Your task to perform on an android device: show emergency info Image 0: 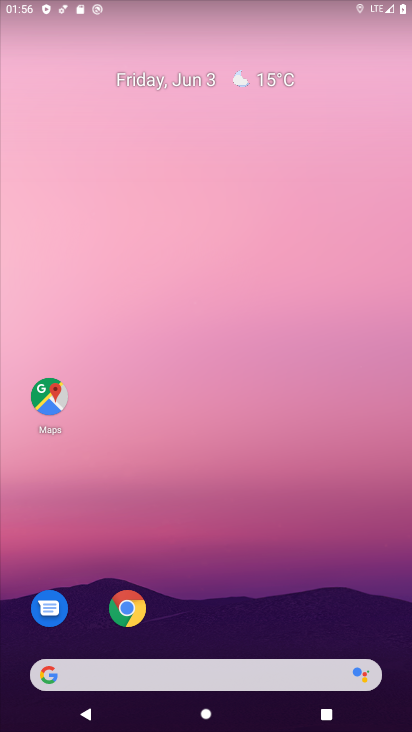
Step 0: drag from (275, 567) to (225, 113)
Your task to perform on an android device: show emergency info Image 1: 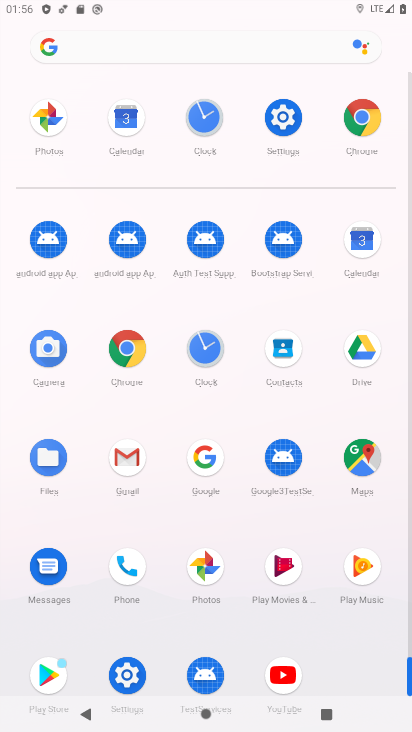
Step 1: click (286, 117)
Your task to perform on an android device: show emergency info Image 2: 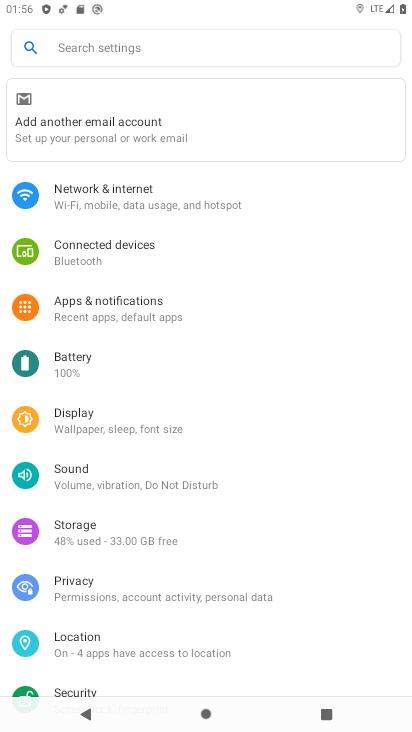
Step 2: drag from (222, 593) to (191, 194)
Your task to perform on an android device: show emergency info Image 3: 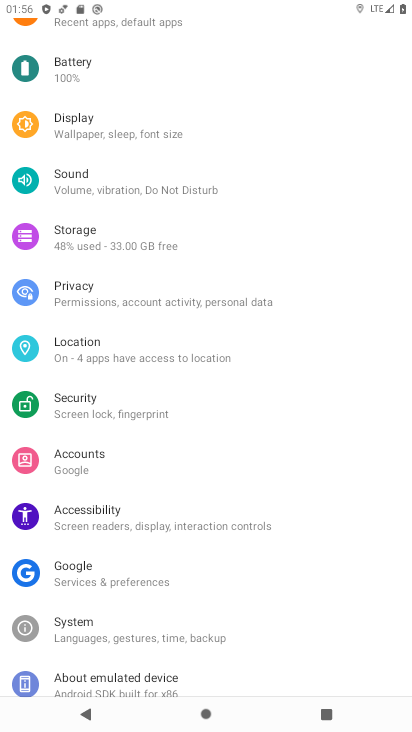
Step 3: drag from (156, 649) to (113, 211)
Your task to perform on an android device: show emergency info Image 4: 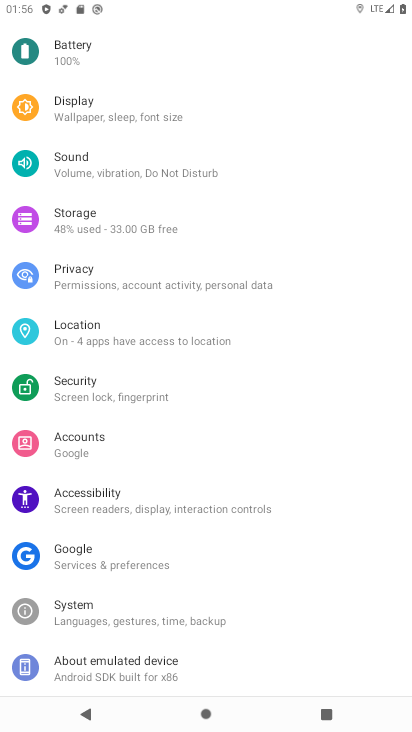
Step 4: click (126, 690)
Your task to perform on an android device: show emergency info Image 5: 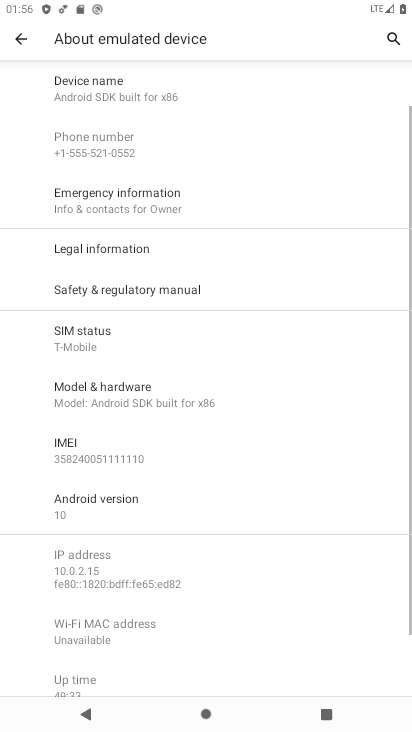
Step 5: drag from (111, 520) to (120, 0)
Your task to perform on an android device: show emergency info Image 6: 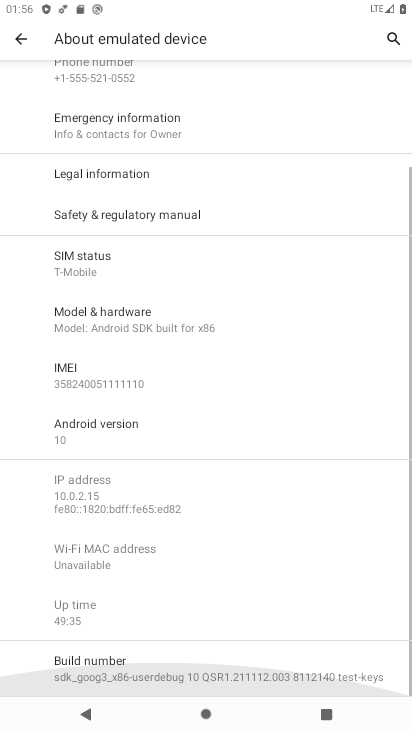
Step 6: drag from (100, 138) to (141, 614)
Your task to perform on an android device: show emergency info Image 7: 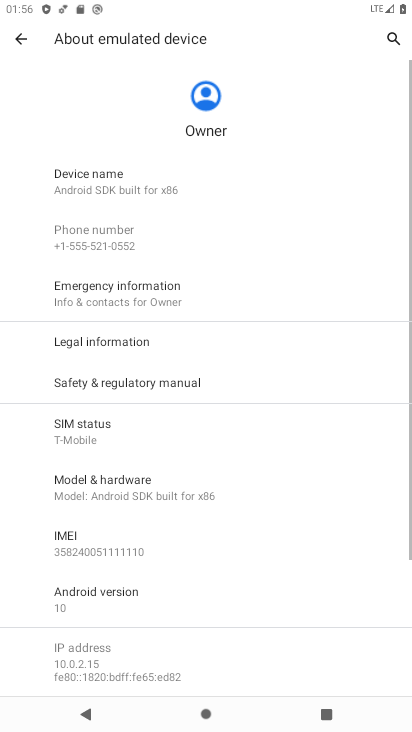
Step 7: click (128, 308)
Your task to perform on an android device: show emergency info Image 8: 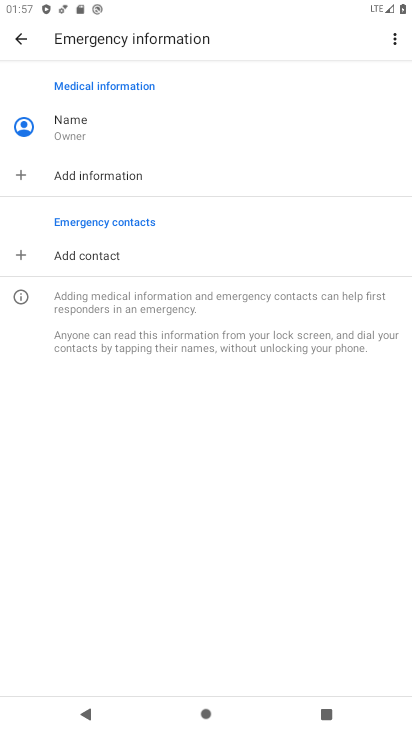
Step 8: task complete